Your task to perform on an android device: Do I have any events today? Image 0: 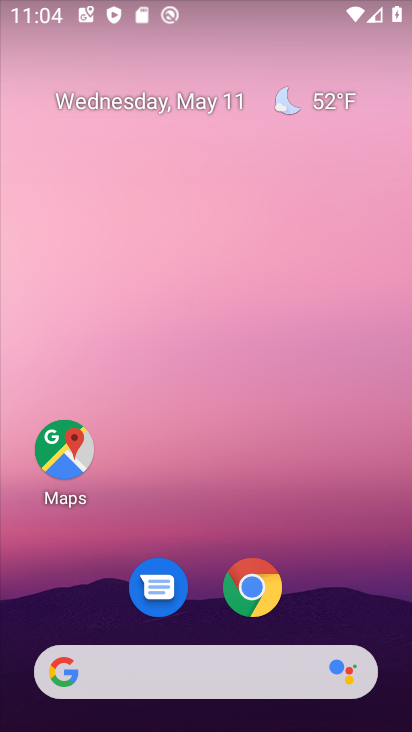
Step 0: drag from (251, 678) to (254, 270)
Your task to perform on an android device: Do I have any events today? Image 1: 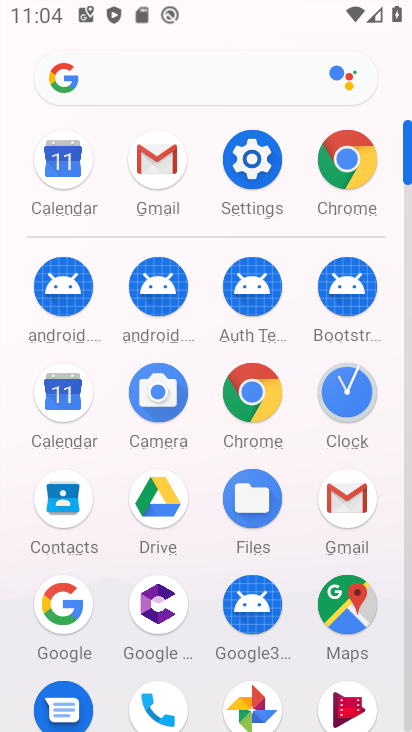
Step 1: click (246, 158)
Your task to perform on an android device: Do I have any events today? Image 2: 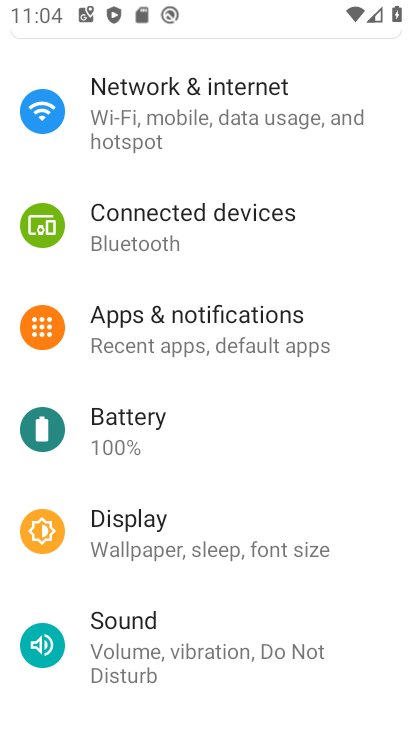
Step 2: press home button
Your task to perform on an android device: Do I have any events today? Image 3: 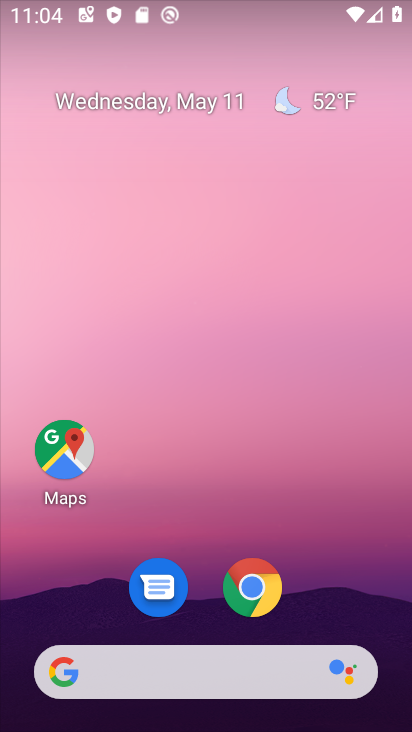
Step 3: drag from (233, 689) to (253, 254)
Your task to perform on an android device: Do I have any events today? Image 4: 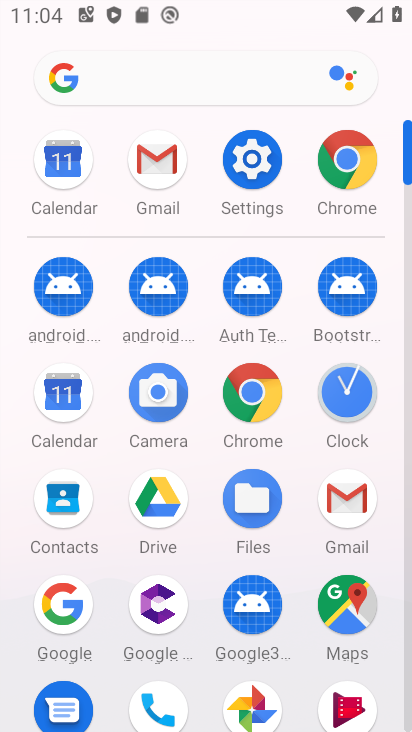
Step 4: click (59, 399)
Your task to perform on an android device: Do I have any events today? Image 5: 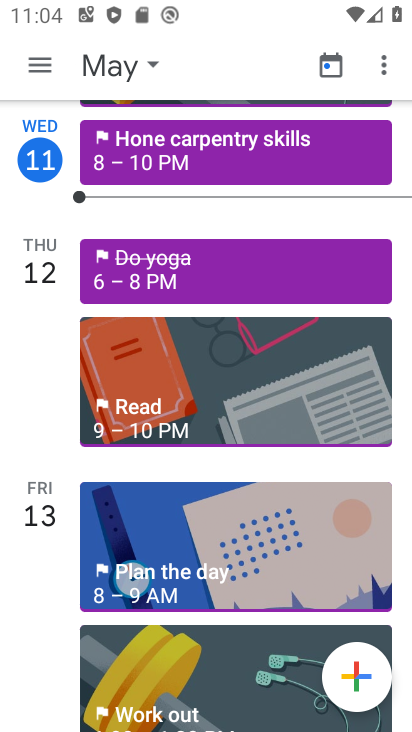
Step 5: task complete